Your task to perform on an android device: search for starred emails in the gmail app Image 0: 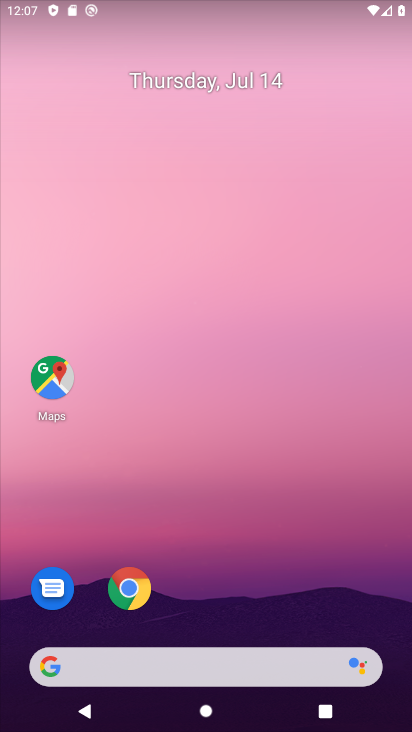
Step 0: drag from (214, 594) to (219, 165)
Your task to perform on an android device: search for starred emails in the gmail app Image 1: 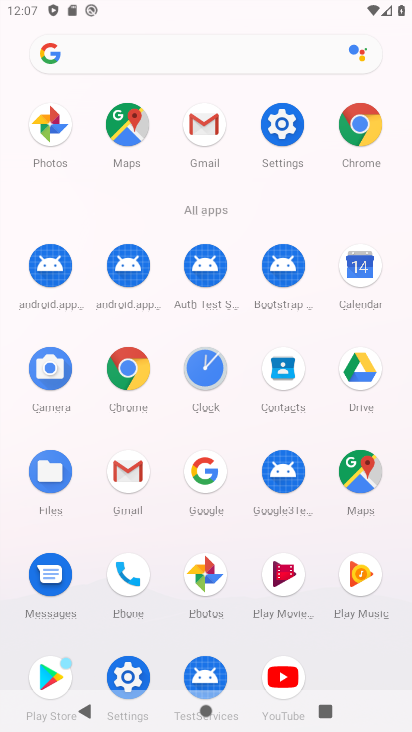
Step 1: click (214, 122)
Your task to perform on an android device: search for starred emails in the gmail app Image 2: 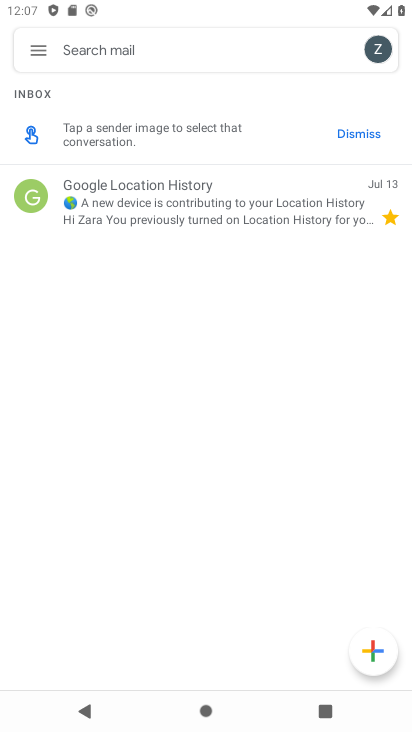
Step 2: click (52, 54)
Your task to perform on an android device: search for starred emails in the gmail app Image 3: 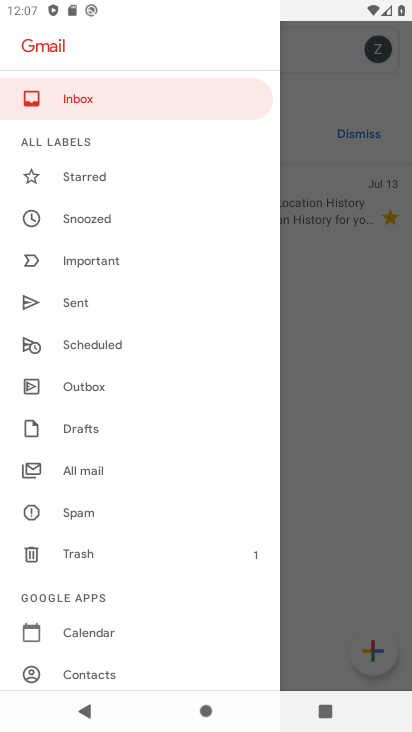
Step 3: click (108, 190)
Your task to perform on an android device: search for starred emails in the gmail app Image 4: 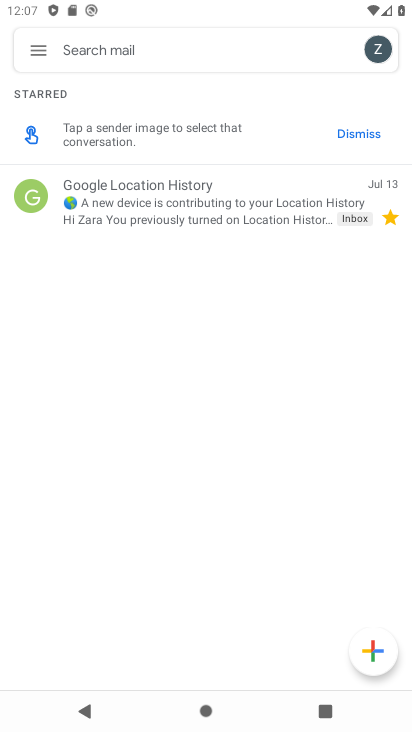
Step 4: task complete